Your task to perform on an android device: How big is a dinosaur? Image 0: 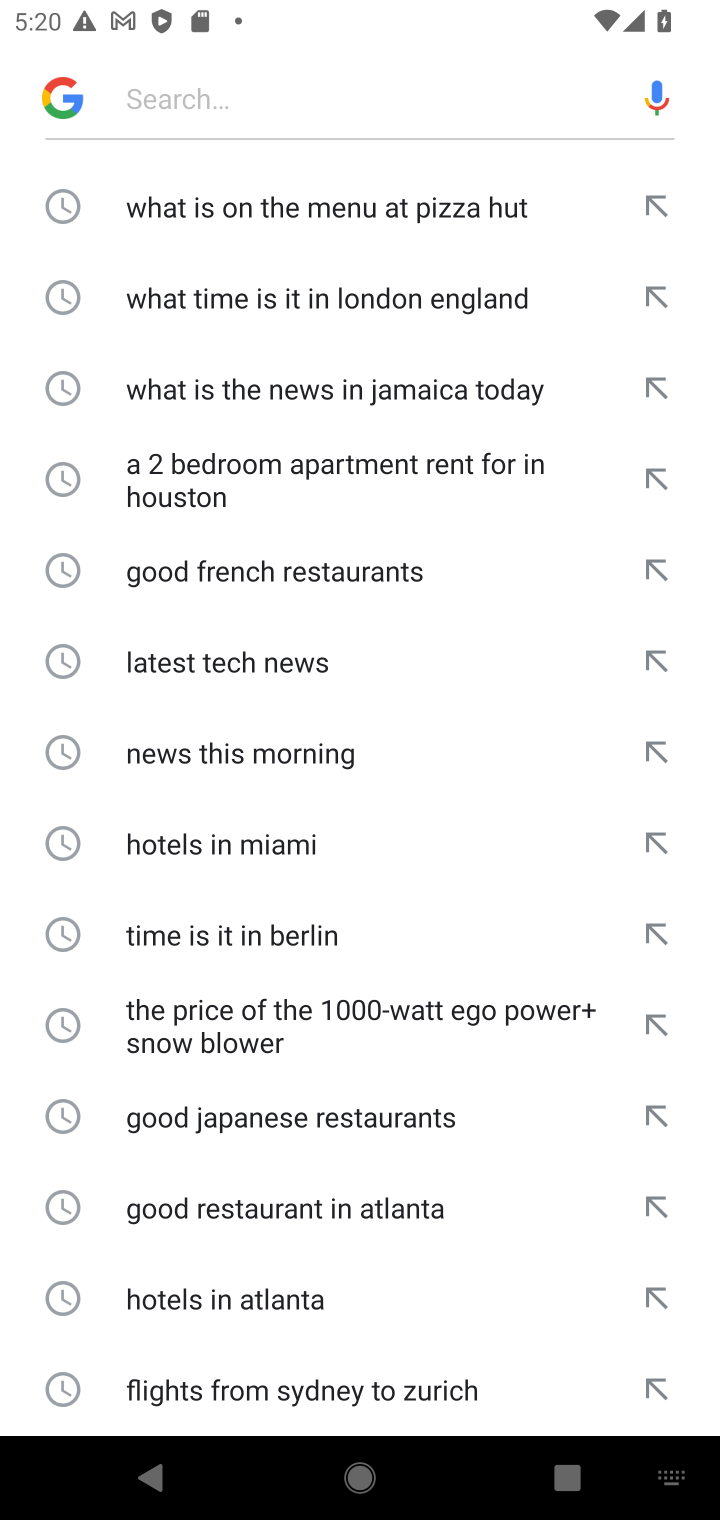
Step 0: type "How big is a dinosaur?"
Your task to perform on an android device: How big is a dinosaur? Image 1: 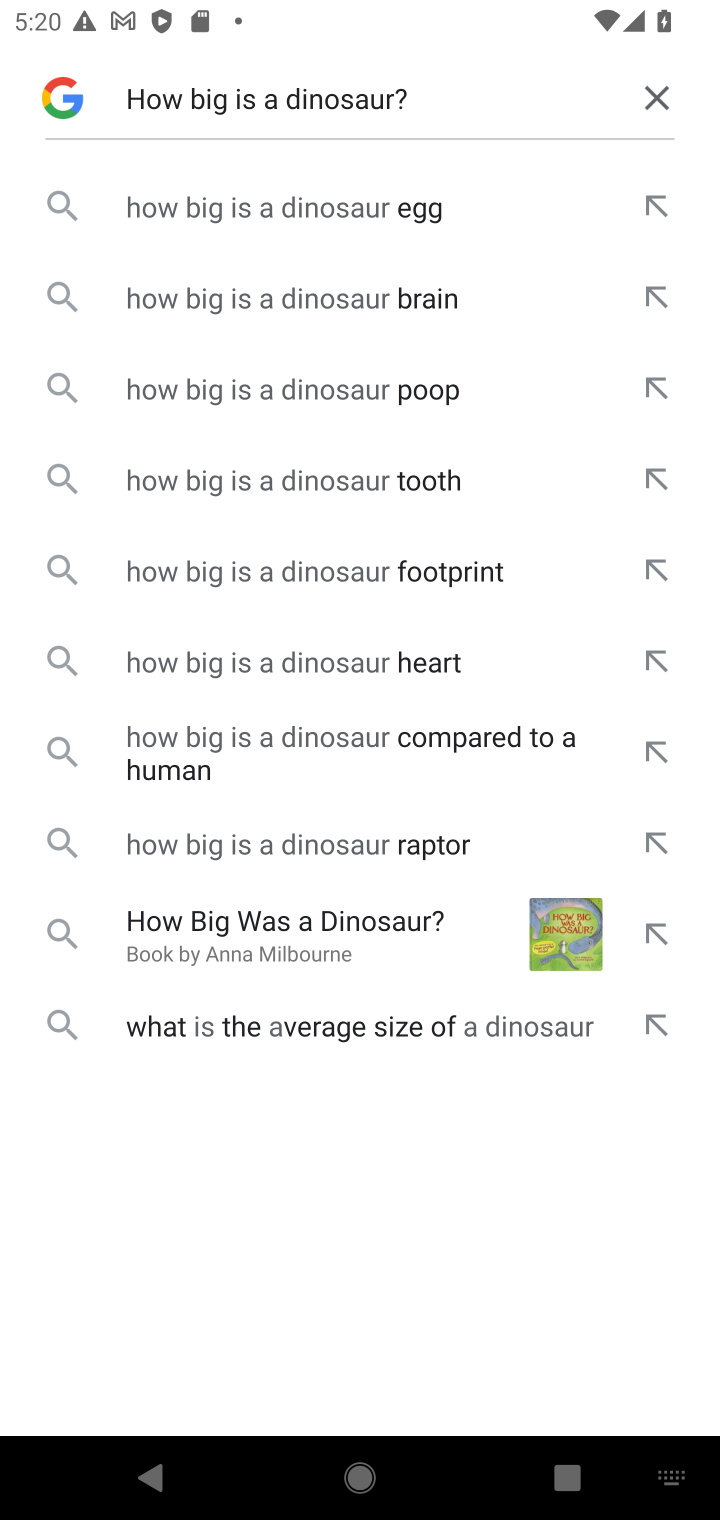
Step 1: click (244, 205)
Your task to perform on an android device: How big is a dinosaur? Image 2: 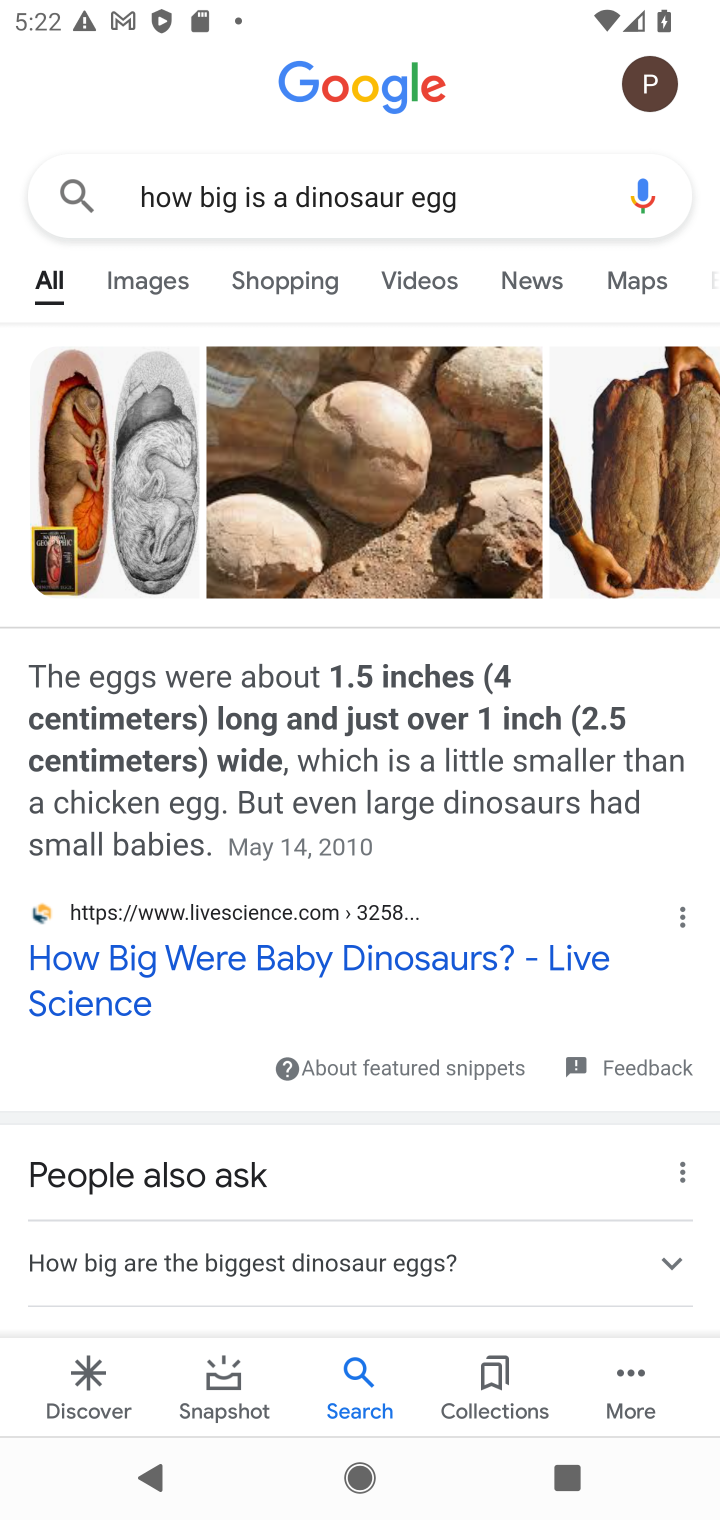
Step 2: task complete